Your task to perform on an android device: Go to Google maps Image 0: 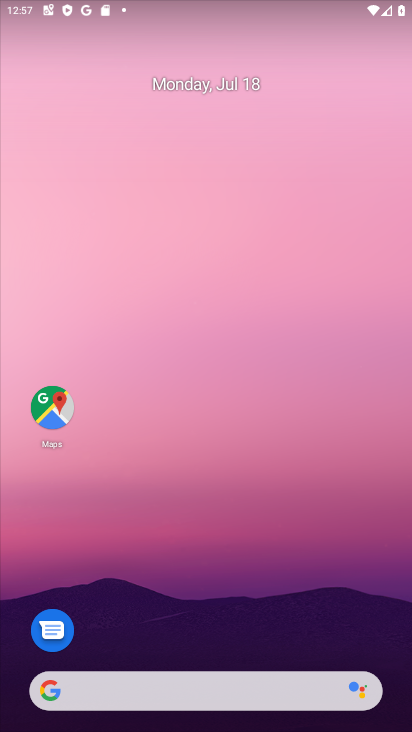
Step 0: drag from (155, 676) to (310, 5)
Your task to perform on an android device: Go to Google maps Image 1: 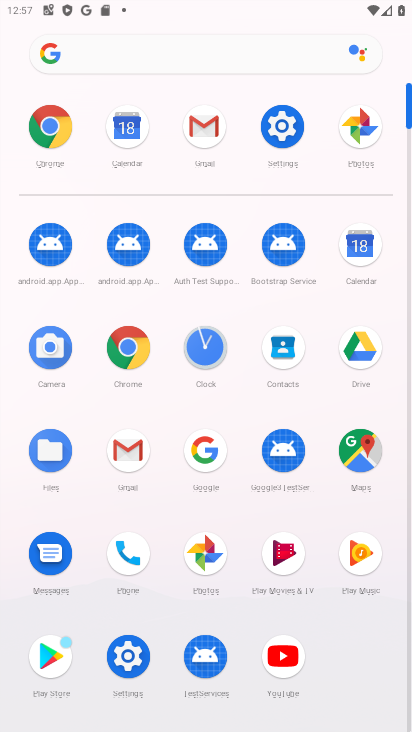
Step 1: click (368, 451)
Your task to perform on an android device: Go to Google maps Image 2: 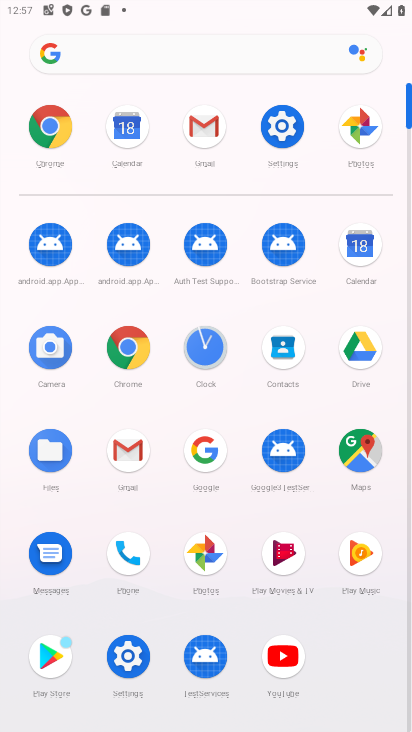
Step 2: click (364, 450)
Your task to perform on an android device: Go to Google maps Image 3: 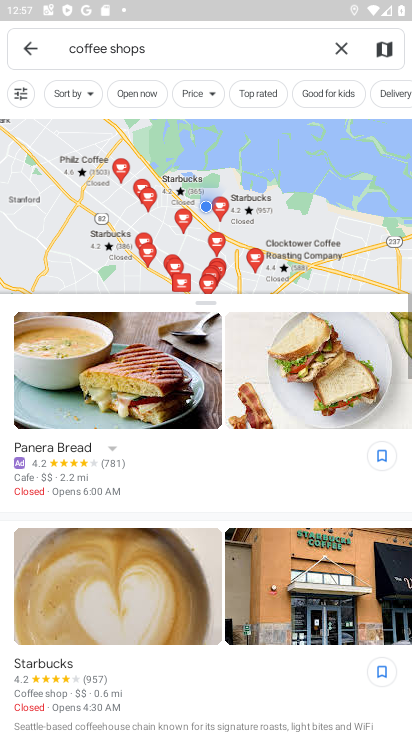
Step 3: task complete